Your task to perform on an android device: Search for flights from Tokyo to Mexico city Image 0: 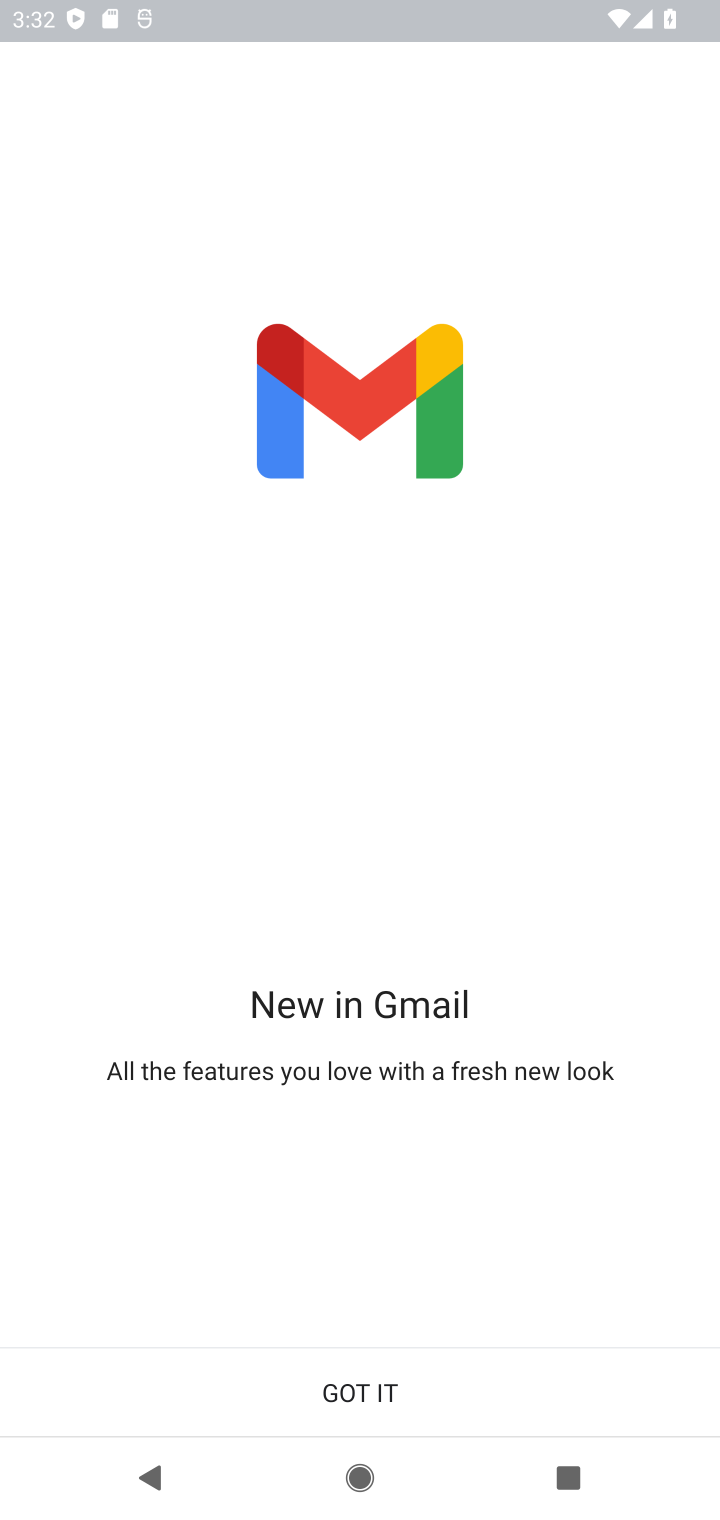
Step 0: press home button
Your task to perform on an android device: Search for flights from Tokyo to Mexico city Image 1: 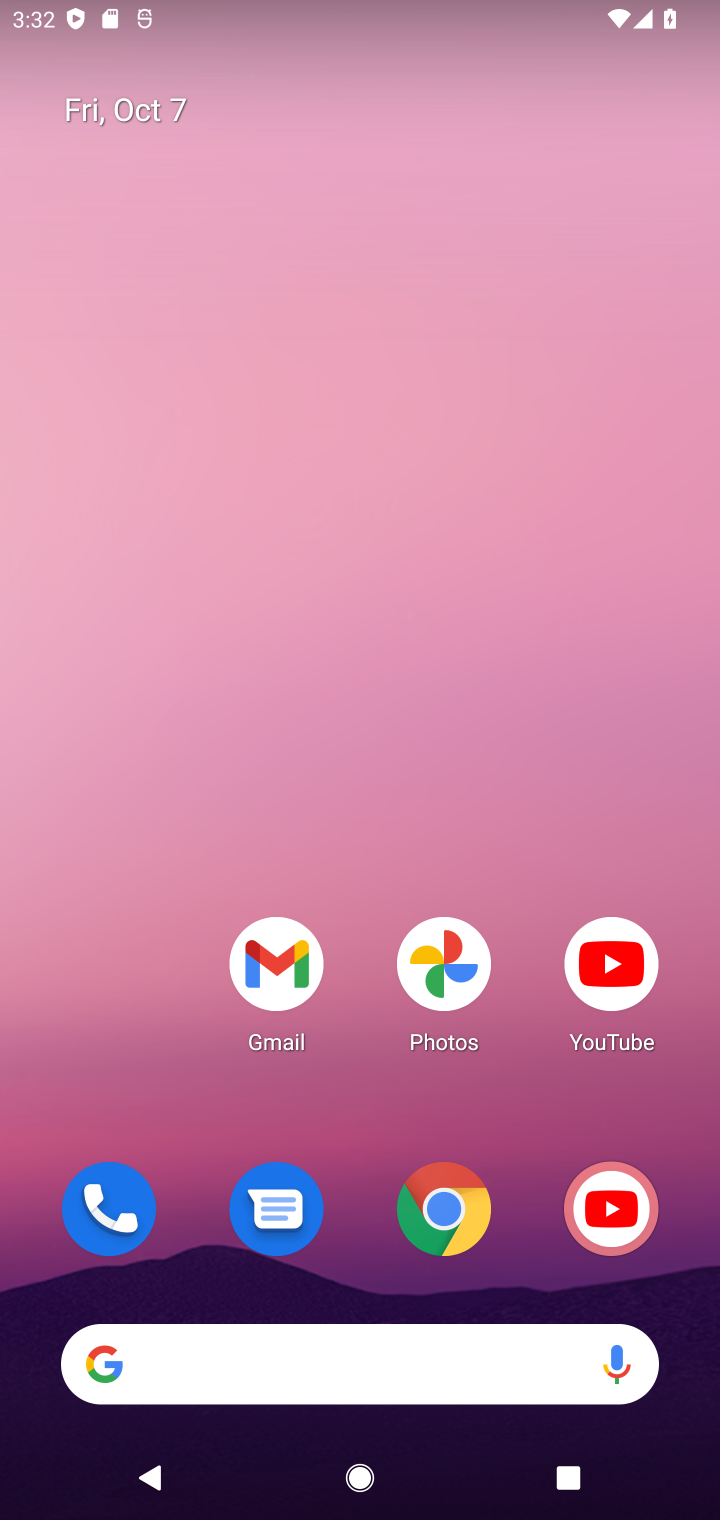
Step 1: click (237, 1343)
Your task to perform on an android device: Search for flights from Tokyo to Mexico city Image 2: 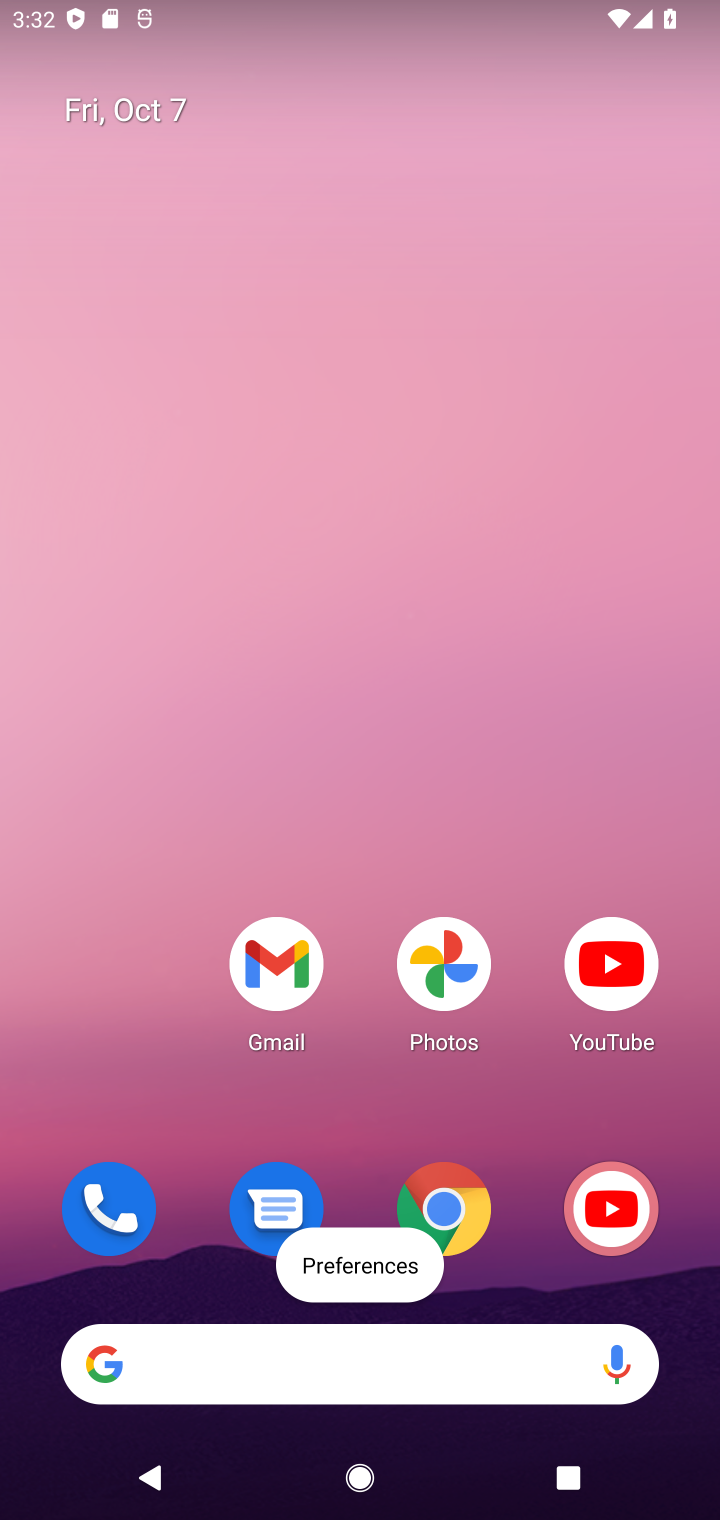
Step 2: click (291, 1367)
Your task to perform on an android device: Search for flights from Tokyo to Mexico city Image 3: 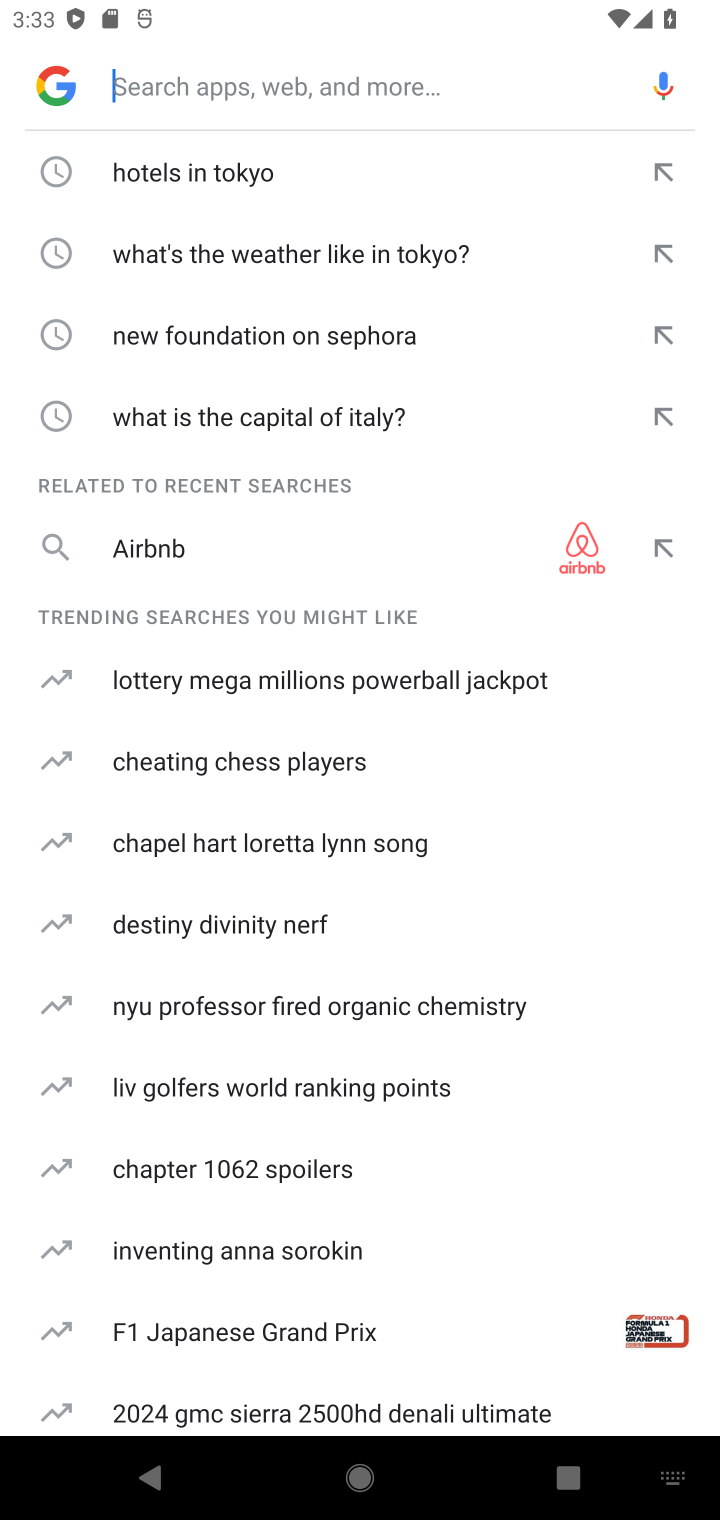
Step 3: type "flights from Tokyo to Mexico city"
Your task to perform on an android device: Search for flights from Tokyo to Mexico city Image 4: 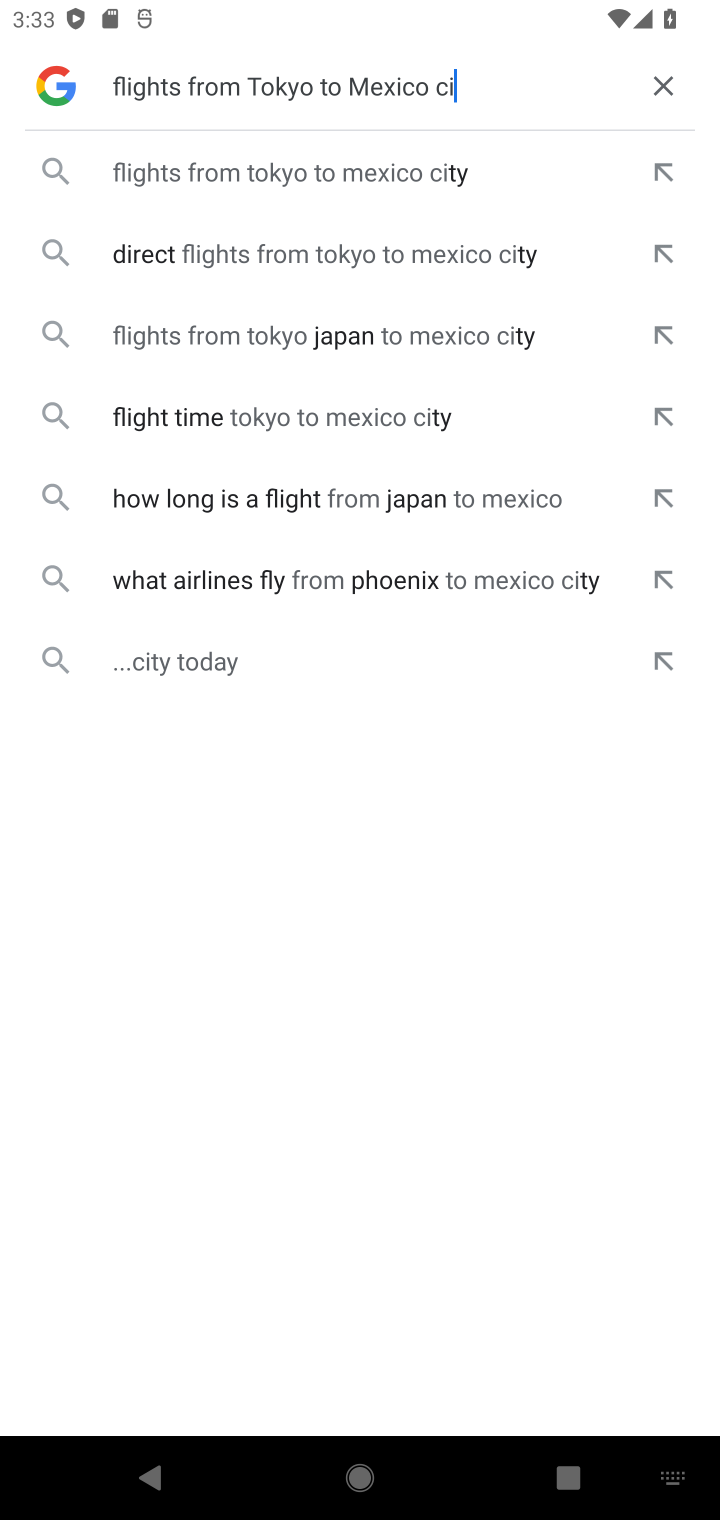
Step 4: press enter
Your task to perform on an android device: Search for flights from Tokyo to Mexico city Image 5: 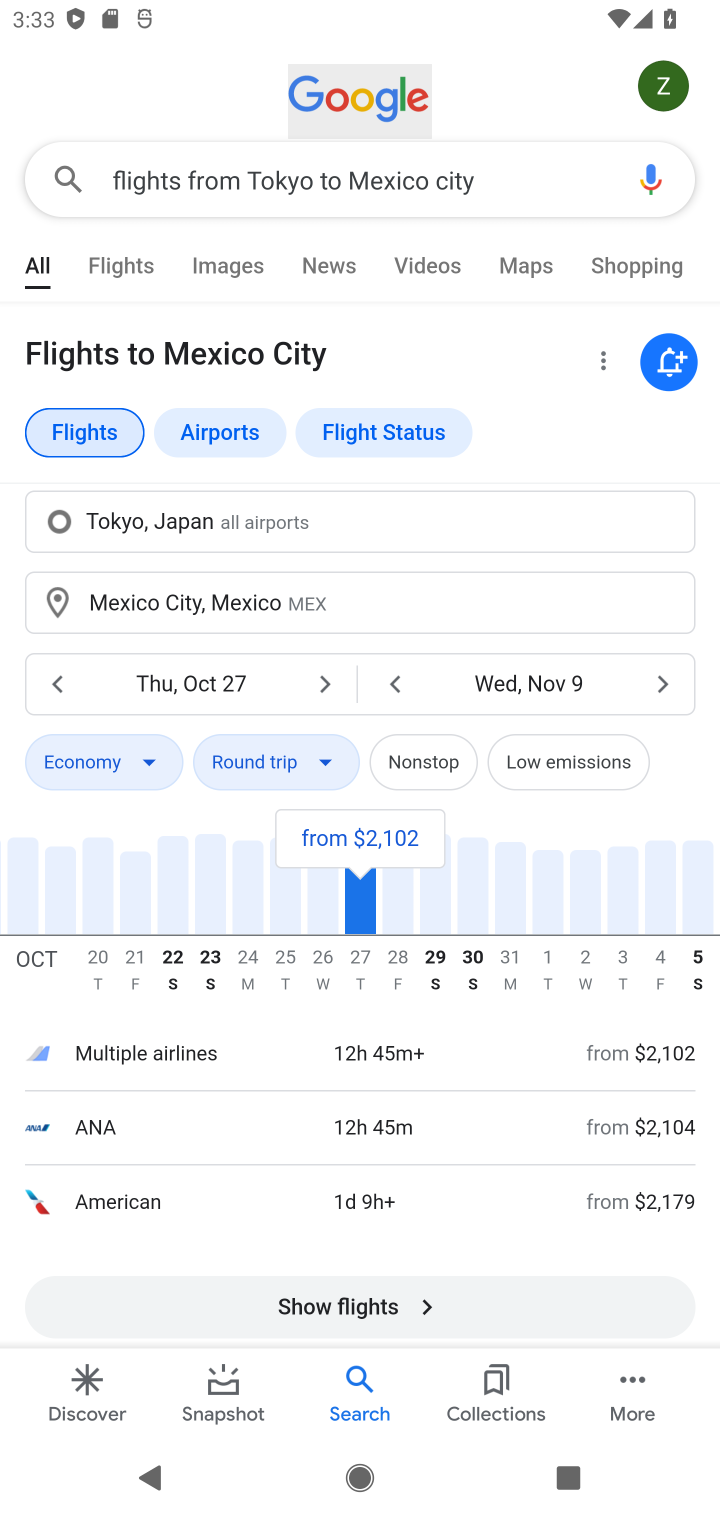
Step 5: drag from (308, 1041) to (312, 490)
Your task to perform on an android device: Search for flights from Tokyo to Mexico city Image 6: 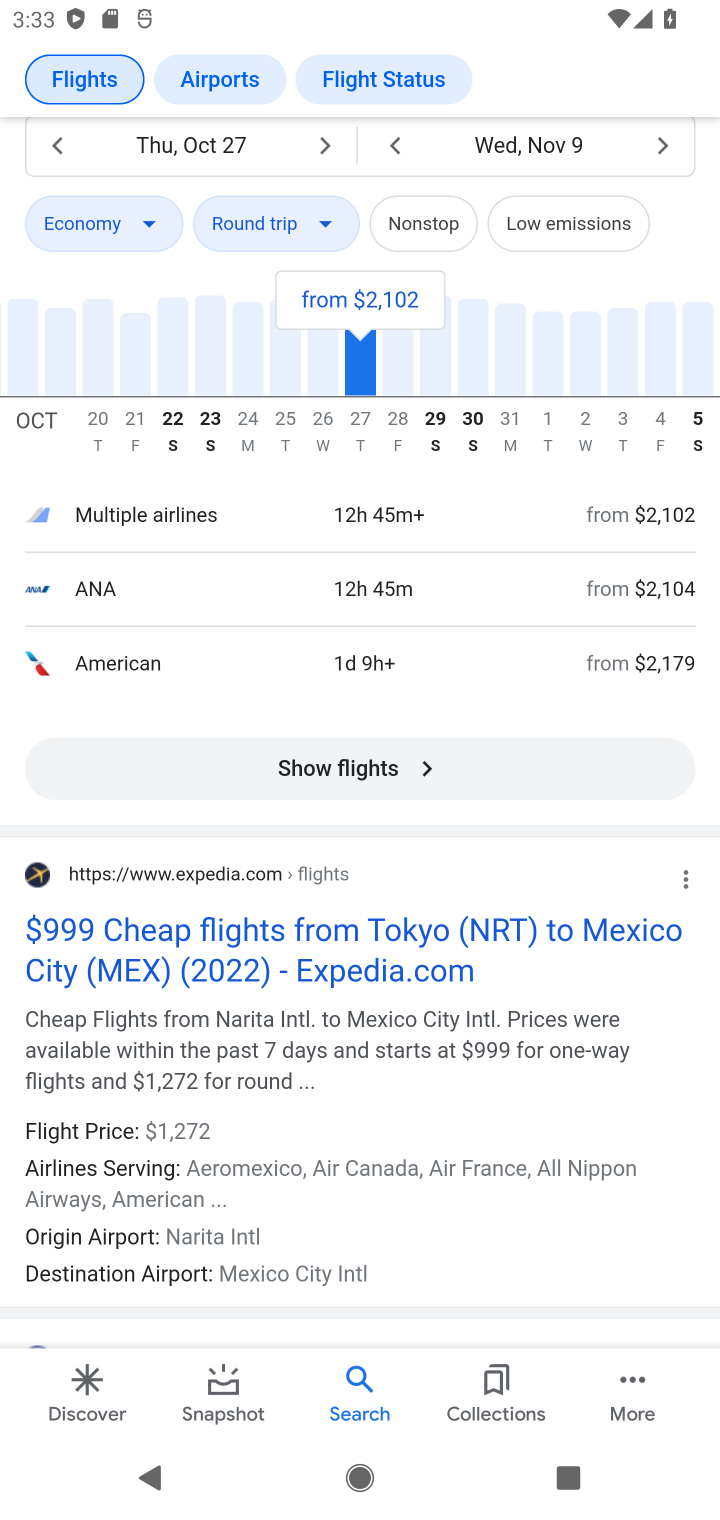
Step 6: click (388, 763)
Your task to perform on an android device: Search for flights from Tokyo to Mexico city Image 7: 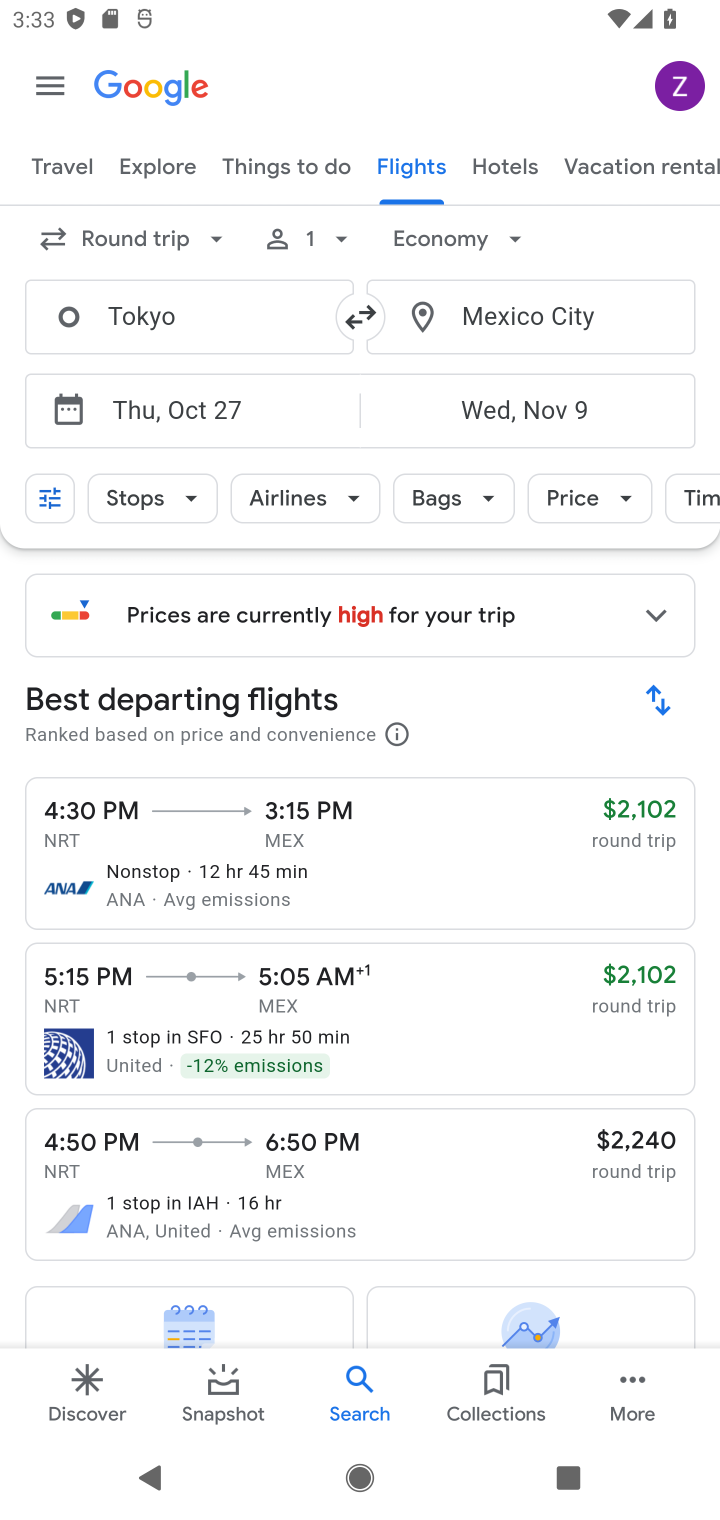
Step 7: task complete